Your task to perform on an android device: check the backup settings in the google photos Image 0: 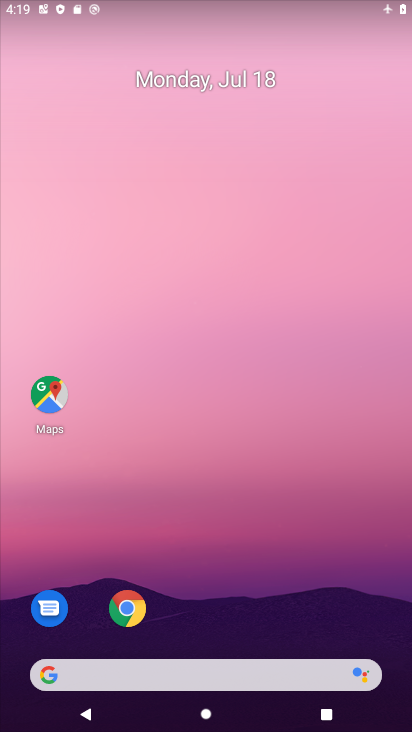
Step 0: drag from (244, 470) to (301, 104)
Your task to perform on an android device: check the backup settings in the google photos Image 1: 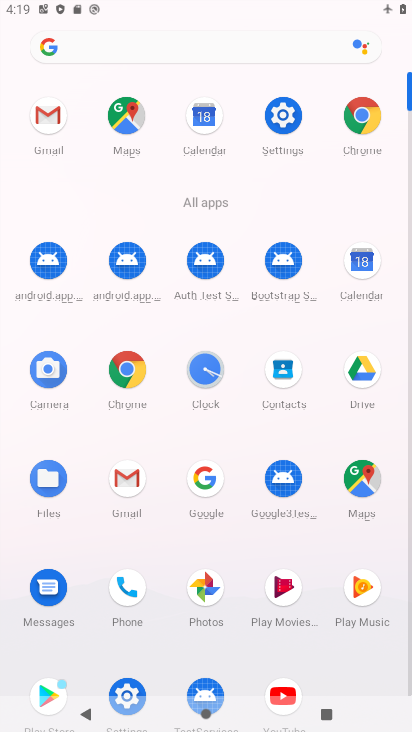
Step 1: click (210, 581)
Your task to perform on an android device: check the backup settings in the google photos Image 2: 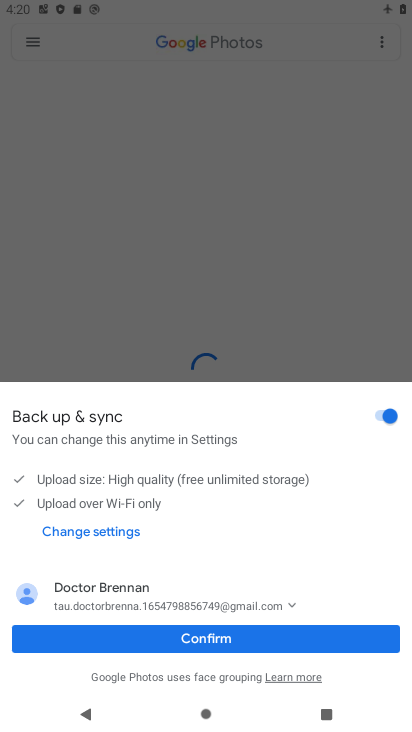
Step 2: click (287, 634)
Your task to perform on an android device: check the backup settings in the google photos Image 3: 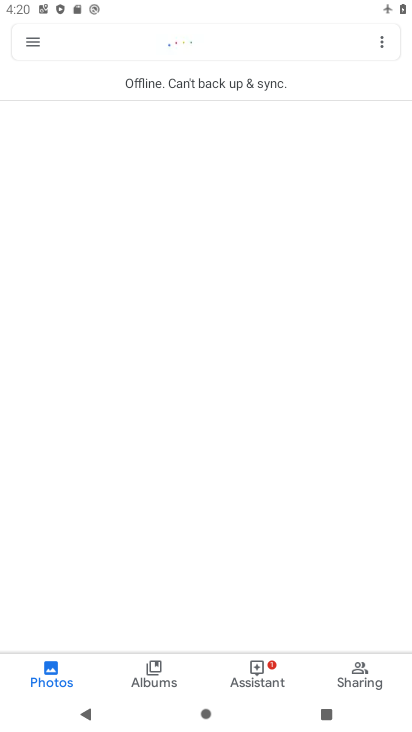
Step 3: click (30, 45)
Your task to perform on an android device: check the backup settings in the google photos Image 4: 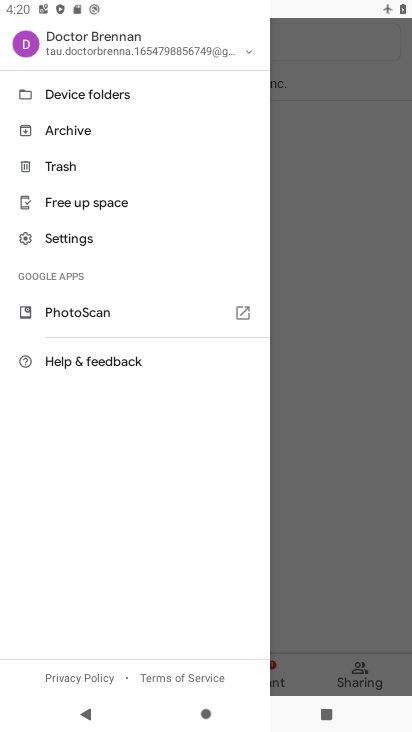
Step 4: click (86, 236)
Your task to perform on an android device: check the backup settings in the google photos Image 5: 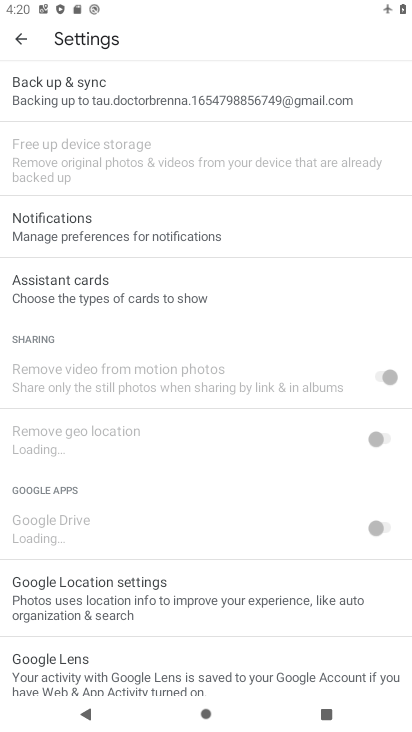
Step 5: click (145, 89)
Your task to perform on an android device: check the backup settings in the google photos Image 6: 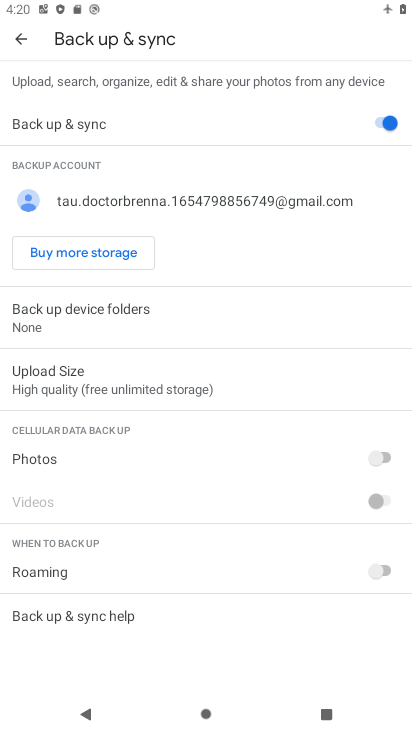
Step 6: task complete